Your task to perform on an android device: visit the assistant section in the google photos Image 0: 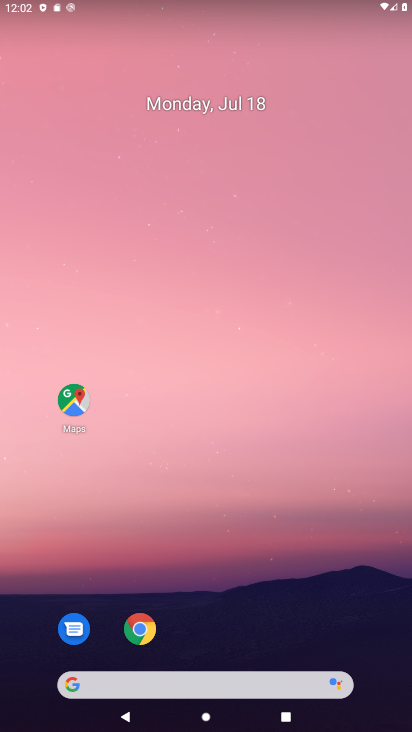
Step 0: press home button
Your task to perform on an android device: visit the assistant section in the google photos Image 1: 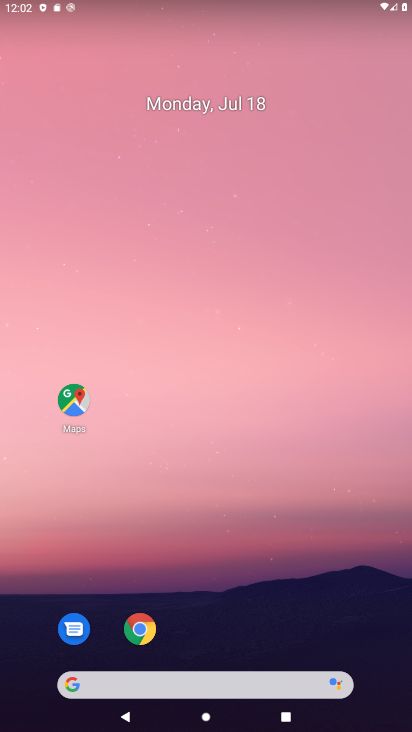
Step 1: drag from (331, 610) to (349, 3)
Your task to perform on an android device: visit the assistant section in the google photos Image 2: 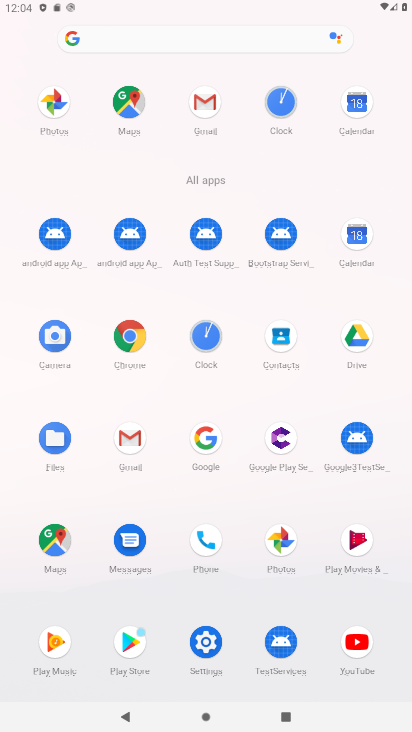
Step 2: click (286, 523)
Your task to perform on an android device: visit the assistant section in the google photos Image 3: 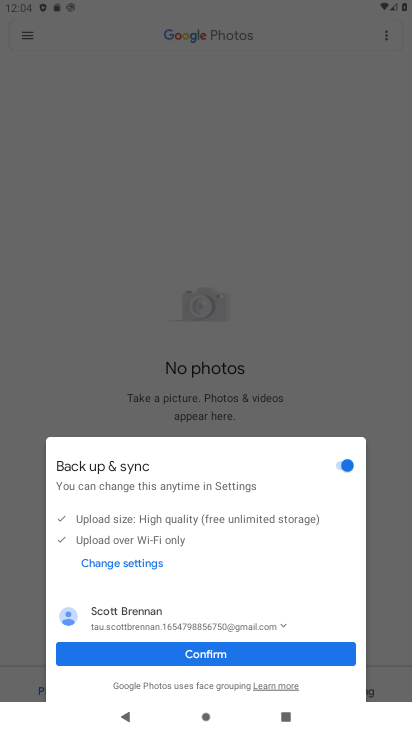
Step 3: click (298, 659)
Your task to perform on an android device: visit the assistant section in the google photos Image 4: 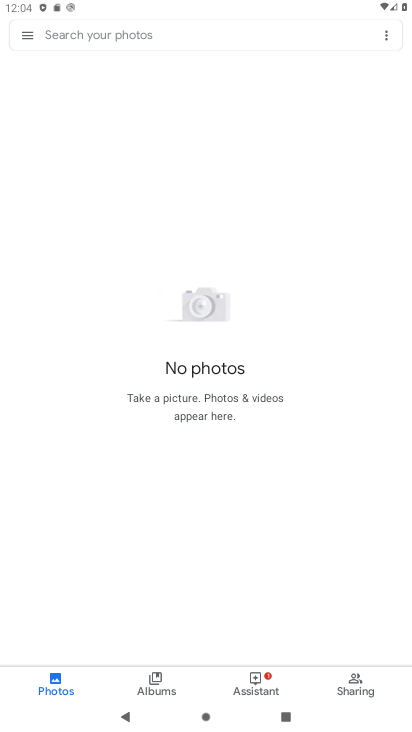
Step 4: click (255, 684)
Your task to perform on an android device: visit the assistant section in the google photos Image 5: 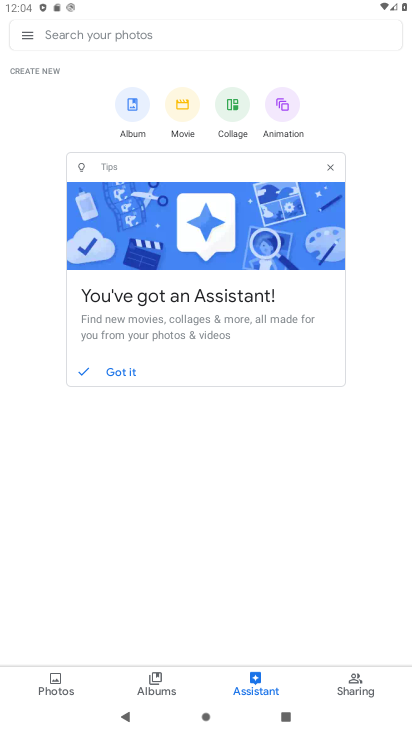
Step 5: task complete